Your task to perform on an android device: Open maps Image 0: 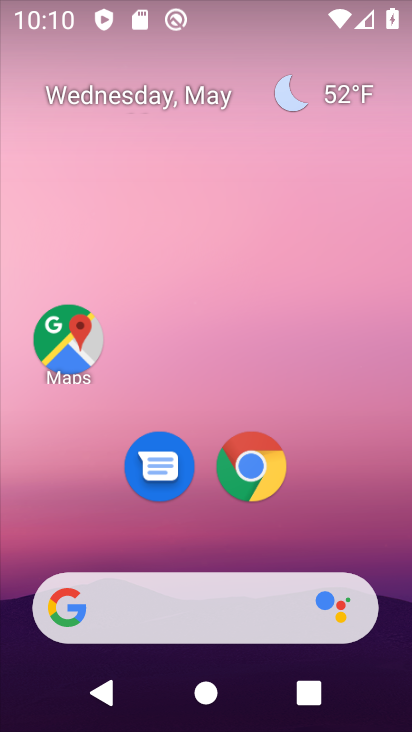
Step 0: click (66, 347)
Your task to perform on an android device: Open maps Image 1: 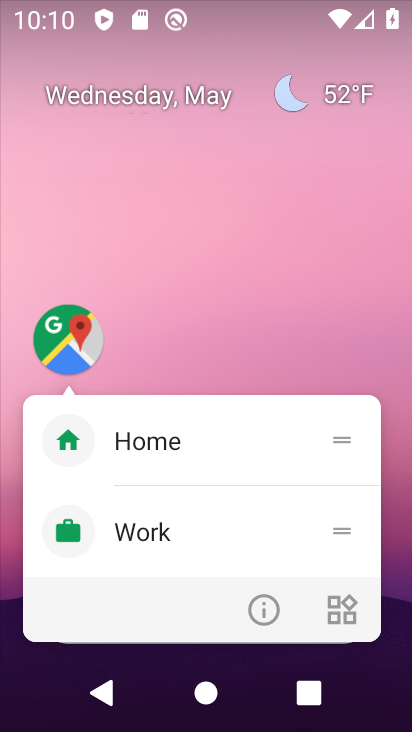
Step 1: click (64, 332)
Your task to perform on an android device: Open maps Image 2: 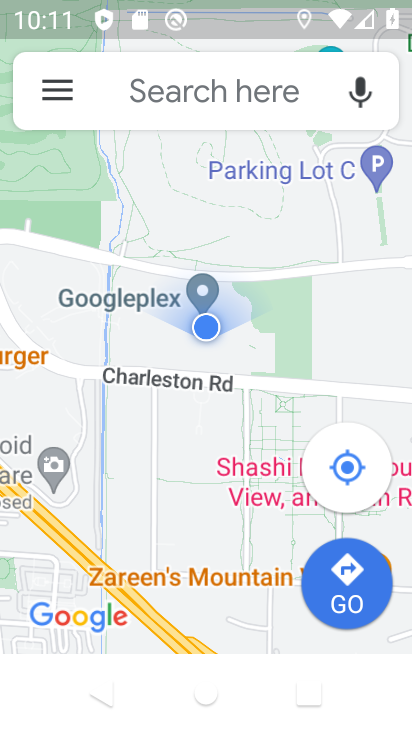
Step 2: task complete